Your task to perform on an android device: turn notification dots on Image 0: 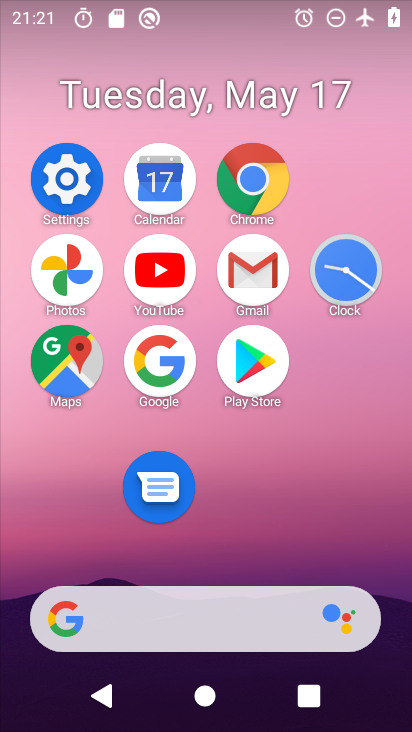
Step 0: click (75, 180)
Your task to perform on an android device: turn notification dots on Image 1: 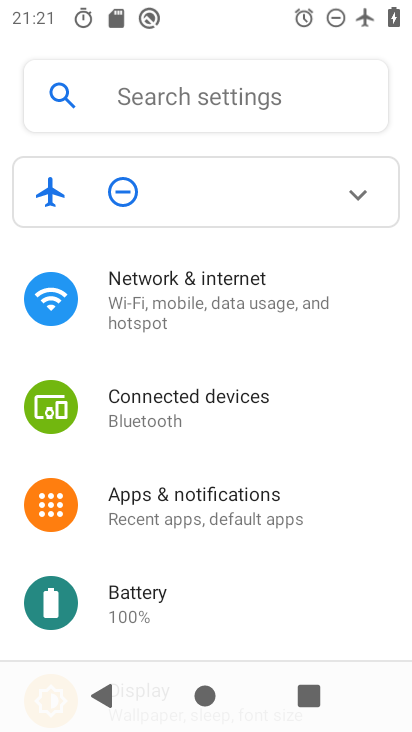
Step 1: click (219, 500)
Your task to perform on an android device: turn notification dots on Image 2: 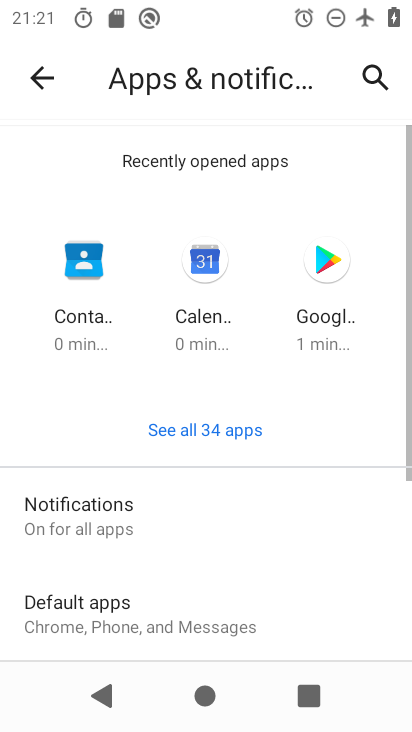
Step 2: click (153, 512)
Your task to perform on an android device: turn notification dots on Image 3: 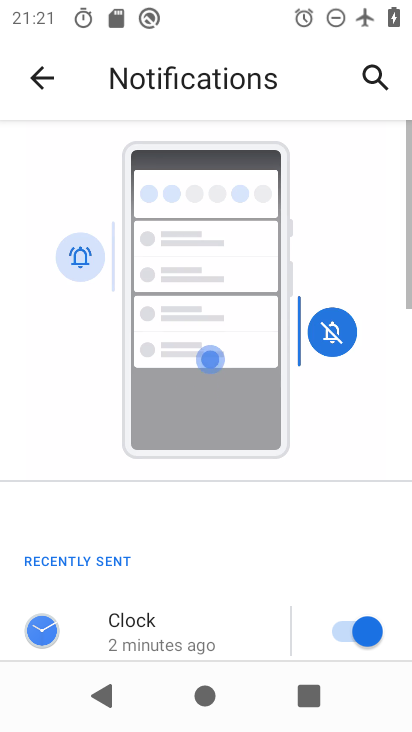
Step 3: drag from (212, 574) to (325, 113)
Your task to perform on an android device: turn notification dots on Image 4: 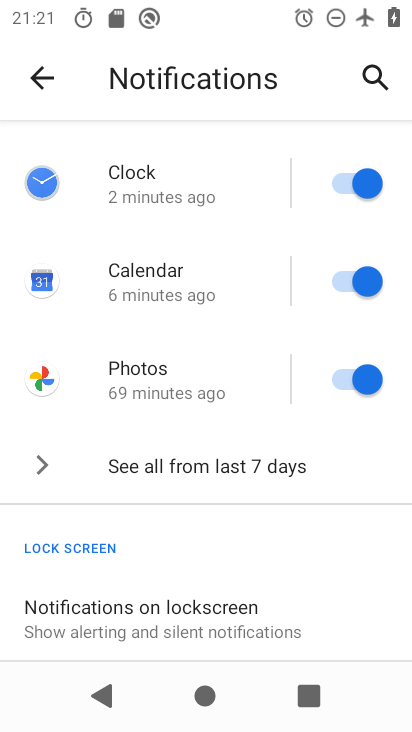
Step 4: drag from (266, 500) to (309, 131)
Your task to perform on an android device: turn notification dots on Image 5: 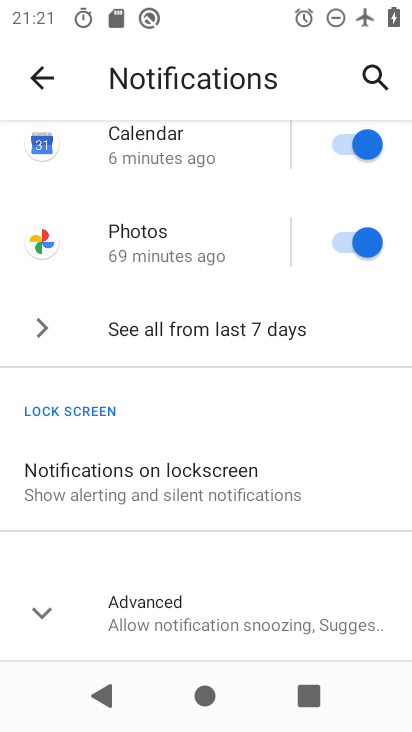
Step 5: click (200, 585)
Your task to perform on an android device: turn notification dots on Image 6: 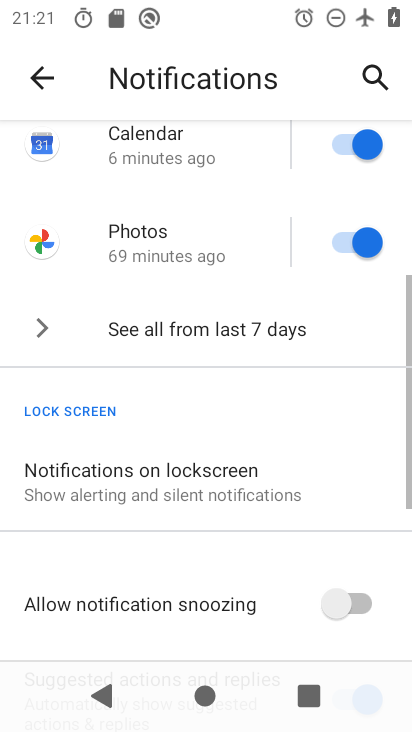
Step 6: task complete